Your task to perform on an android device: toggle pop-ups in chrome Image 0: 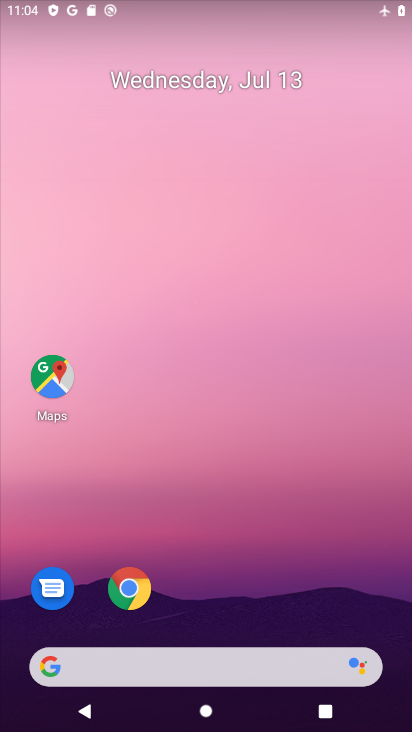
Step 0: click (125, 592)
Your task to perform on an android device: toggle pop-ups in chrome Image 1: 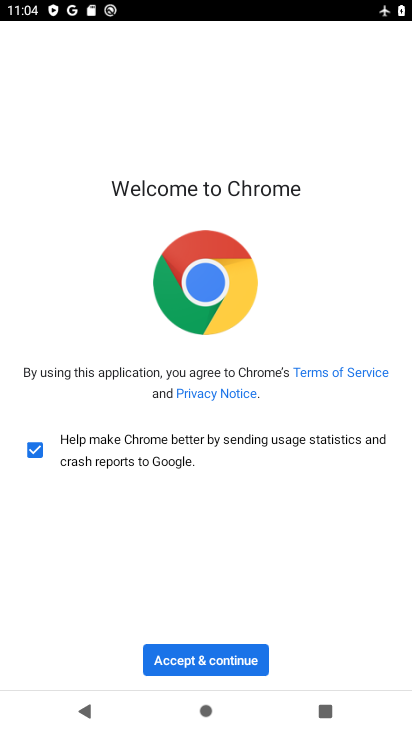
Step 1: click (210, 662)
Your task to perform on an android device: toggle pop-ups in chrome Image 2: 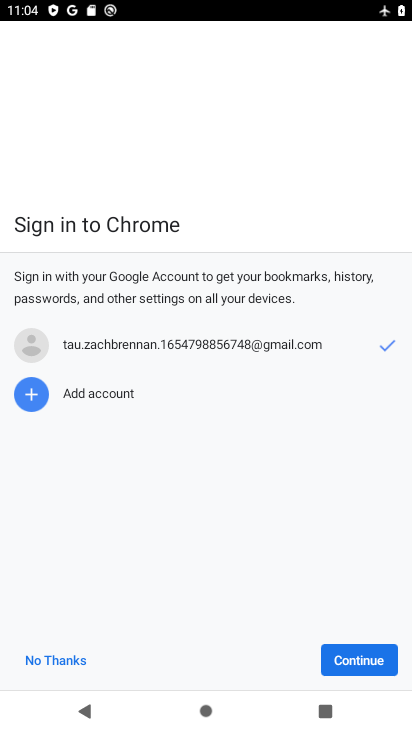
Step 2: click (345, 653)
Your task to perform on an android device: toggle pop-ups in chrome Image 3: 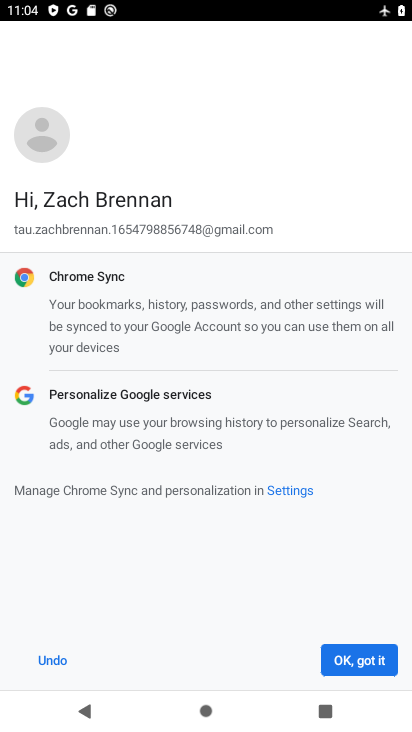
Step 3: click (348, 656)
Your task to perform on an android device: toggle pop-ups in chrome Image 4: 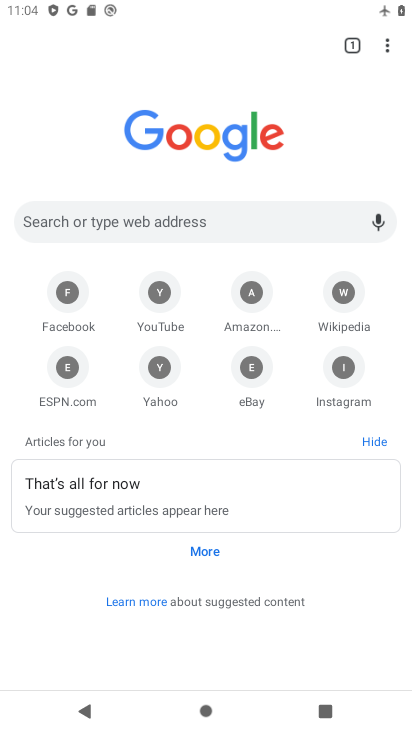
Step 4: click (384, 51)
Your task to perform on an android device: toggle pop-ups in chrome Image 5: 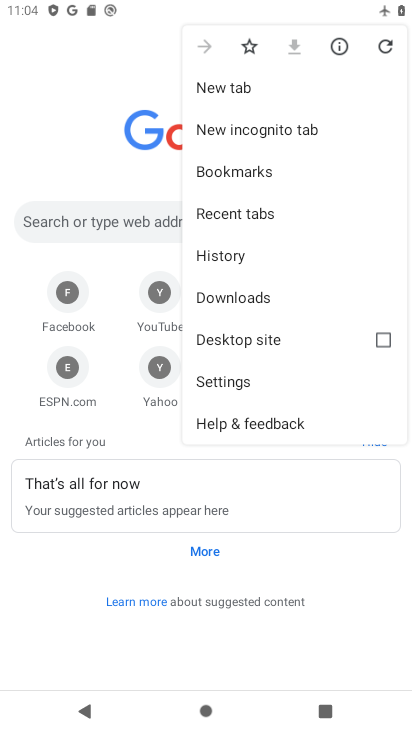
Step 5: click (239, 385)
Your task to perform on an android device: toggle pop-ups in chrome Image 6: 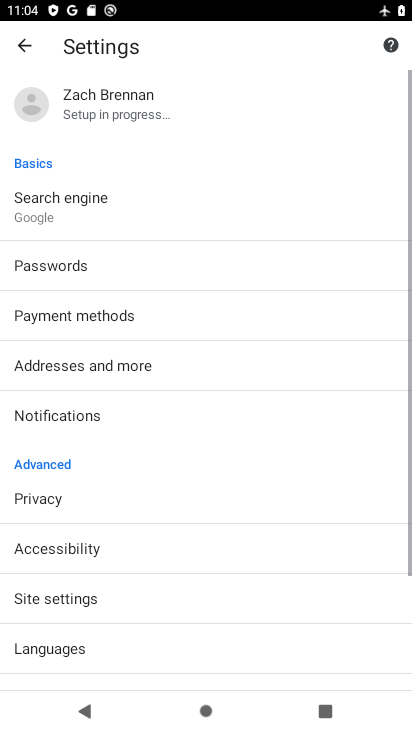
Step 6: click (50, 604)
Your task to perform on an android device: toggle pop-ups in chrome Image 7: 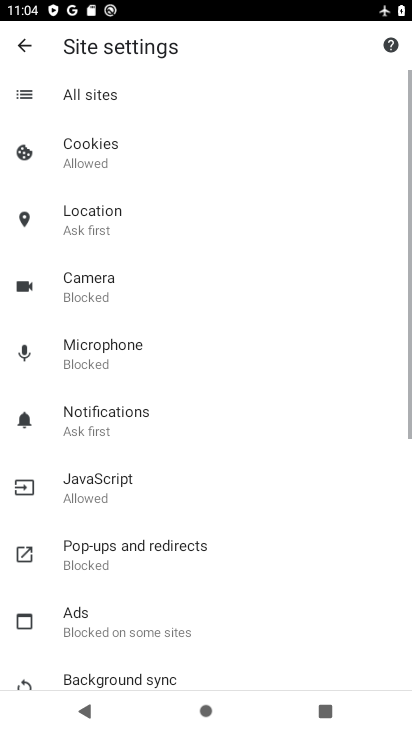
Step 7: click (115, 547)
Your task to perform on an android device: toggle pop-ups in chrome Image 8: 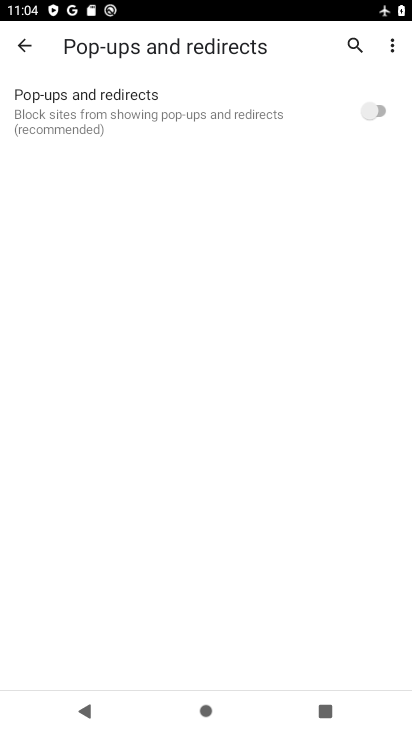
Step 8: click (379, 114)
Your task to perform on an android device: toggle pop-ups in chrome Image 9: 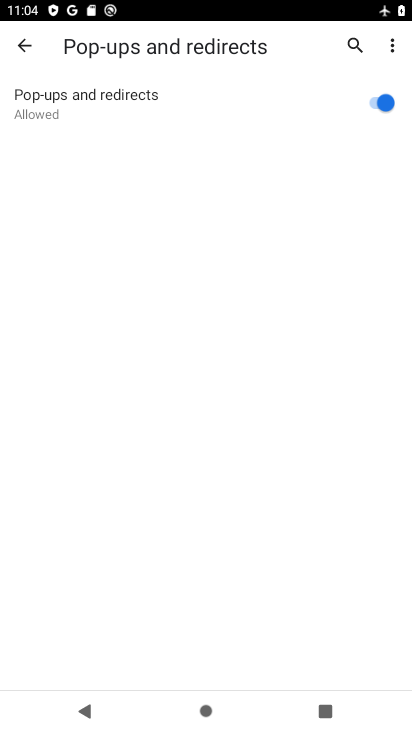
Step 9: task complete